Your task to perform on an android device: What is the recent news? Image 0: 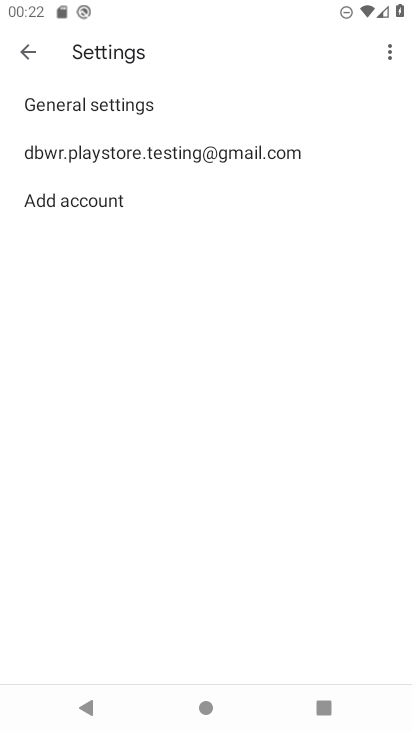
Step 0: click (40, 50)
Your task to perform on an android device: What is the recent news? Image 1: 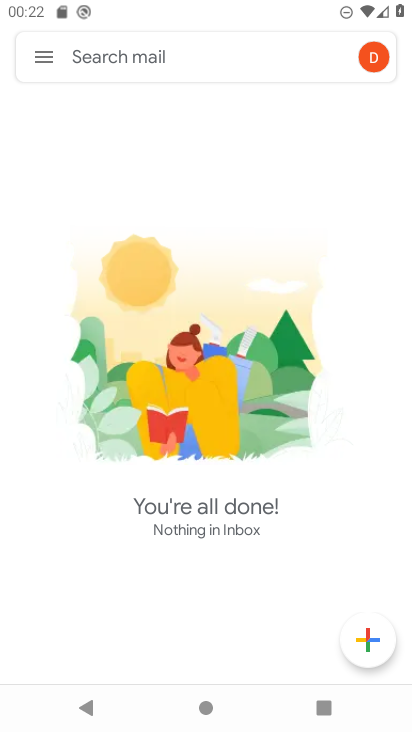
Step 1: click (83, 711)
Your task to perform on an android device: What is the recent news? Image 2: 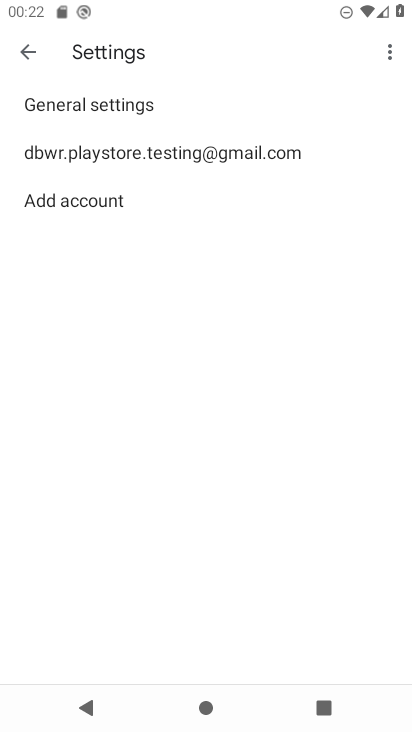
Step 2: press home button
Your task to perform on an android device: What is the recent news? Image 3: 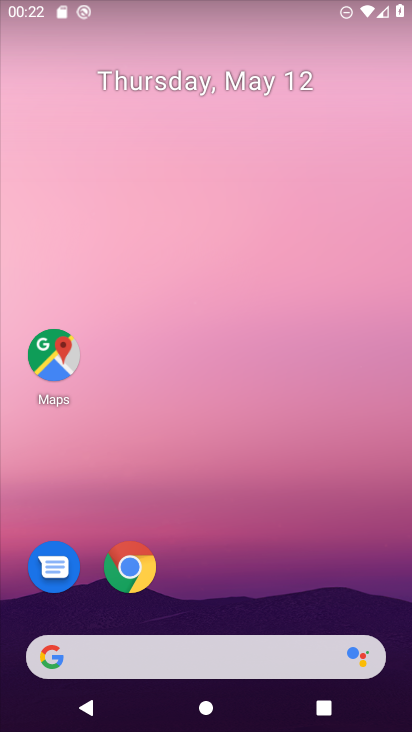
Step 3: click (109, 655)
Your task to perform on an android device: What is the recent news? Image 4: 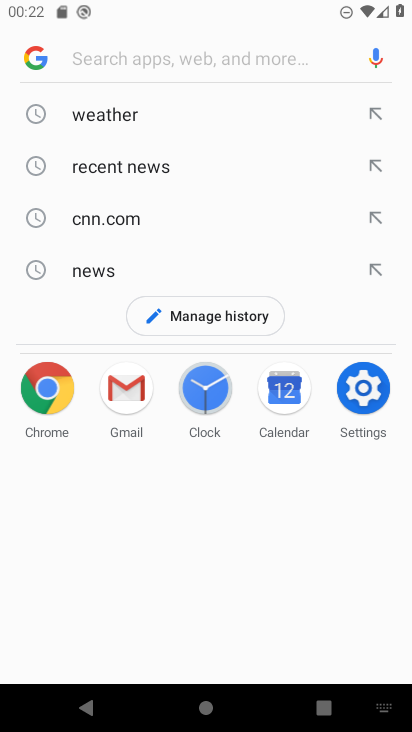
Step 4: click (199, 160)
Your task to perform on an android device: What is the recent news? Image 5: 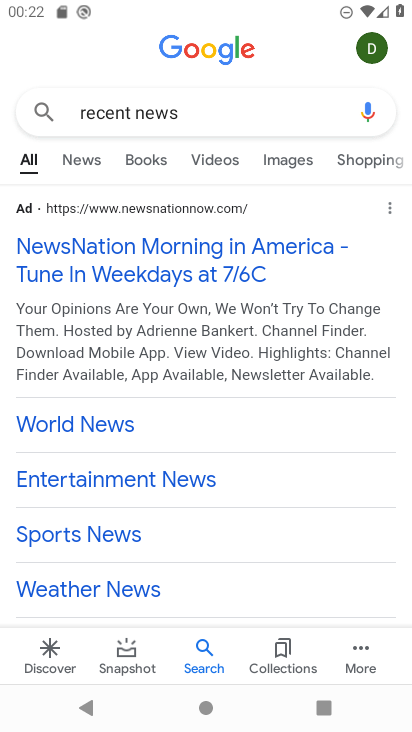
Step 5: task complete